Your task to perform on an android device: Open notification settings Image 0: 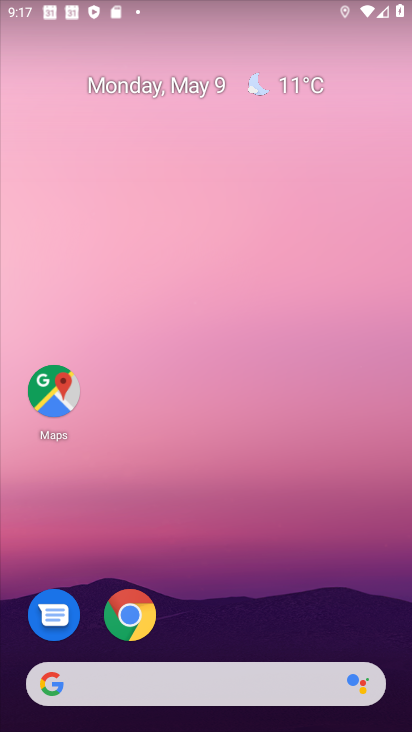
Step 0: drag from (245, 583) to (273, 6)
Your task to perform on an android device: Open notification settings Image 1: 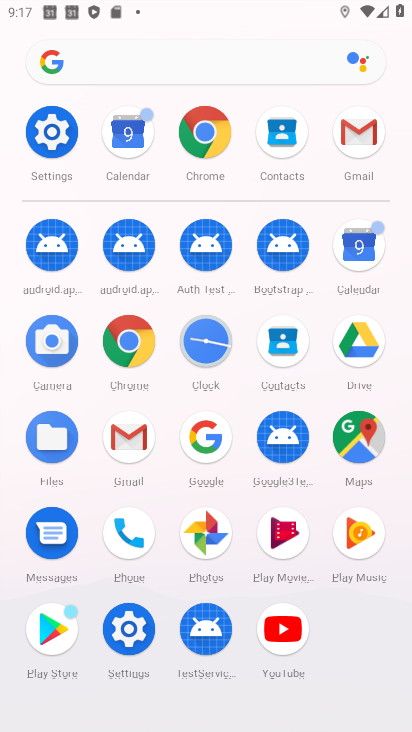
Step 1: click (125, 630)
Your task to perform on an android device: Open notification settings Image 2: 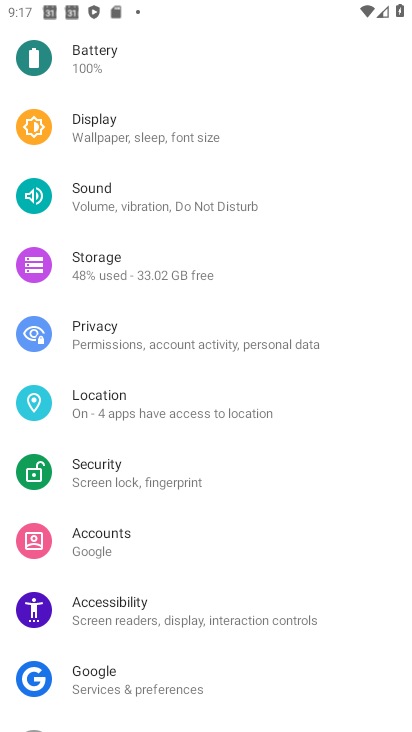
Step 2: drag from (226, 220) to (208, 566)
Your task to perform on an android device: Open notification settings Image 3: 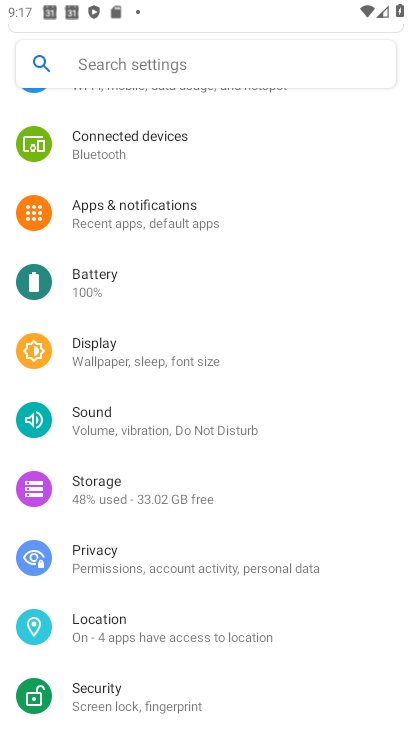
Step 3: click (167, 213)
Your task to perform on an android device: Open notification settings Image 4: 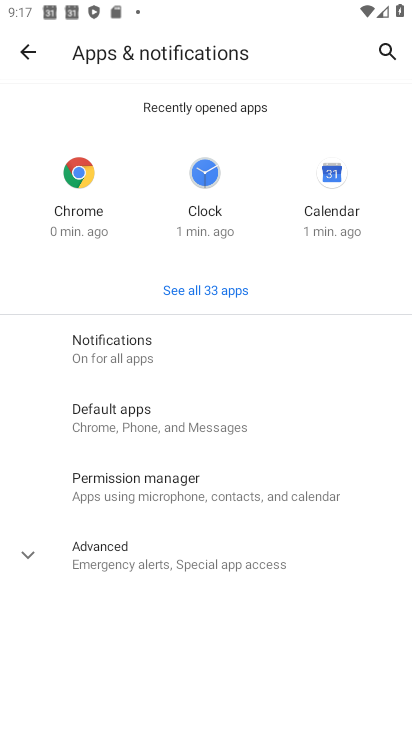
Step 4: click (24, 550)
Your task to perform on an android device: Open notification settings Image 5: 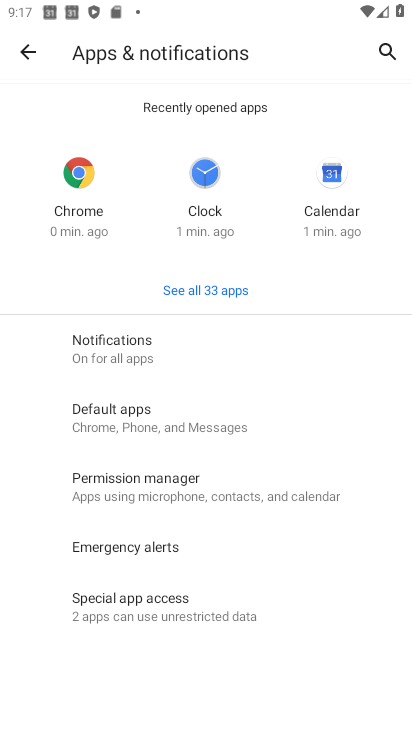
Step 5: drag from (279, 632) to (293, 183)
Your task to perform on an android device: Open notification settings Image 6: 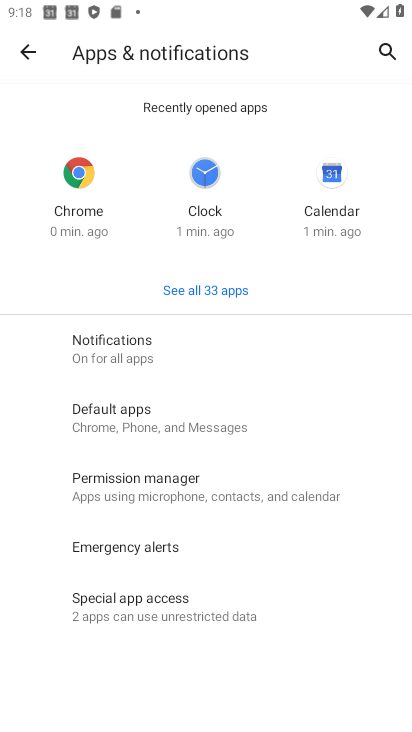
Step 6: click (185, 347)
Your task to perform on an android device: Open notification settings Image 7: 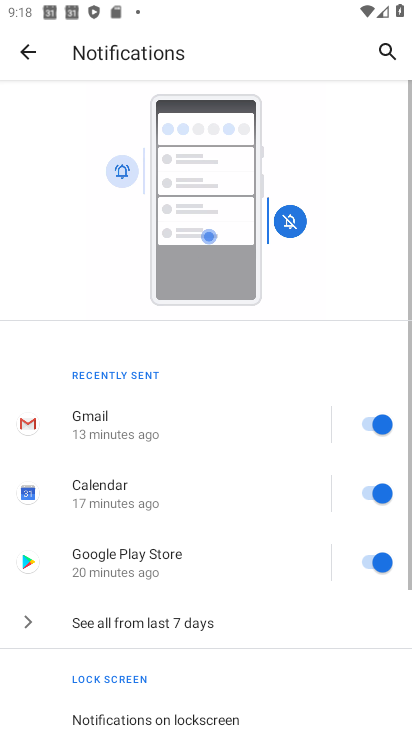
Step 7: task complete